Your task to perform on an android device: toggle location history Image 0: 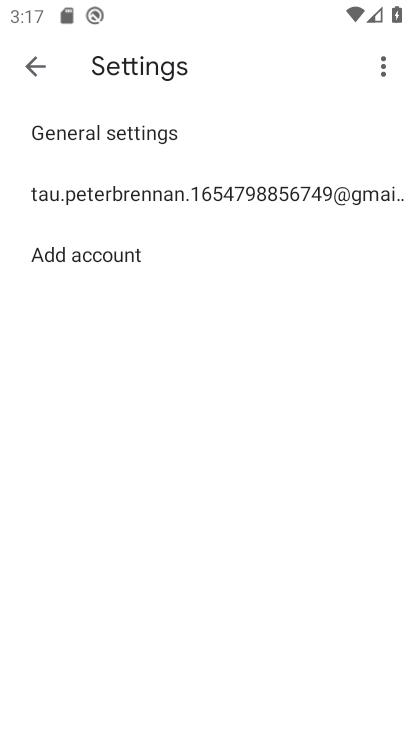
Step 0: press home button
Your task to perform on an android device: toggle location history Image 1: 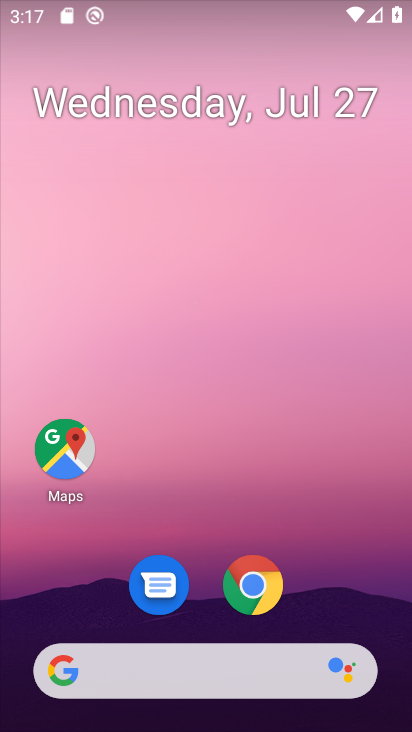
Step 1: drag from (192, 545) to (214, 75)
Your task to perform on an android device: toggle location history Image 2: 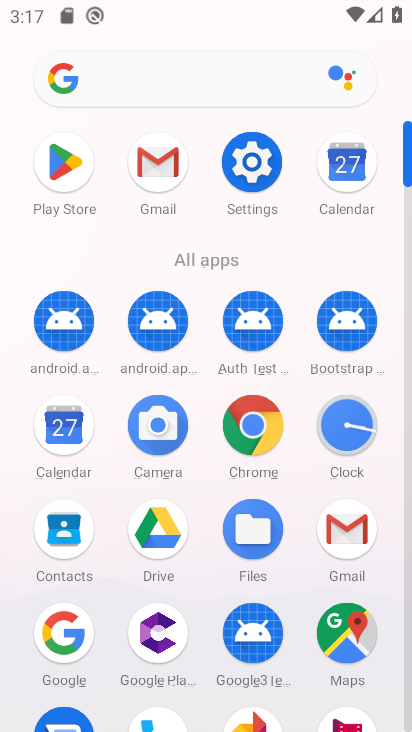
Step 2: click (256, 166)
Your task to perform on an android device: toggle location history Image 3: 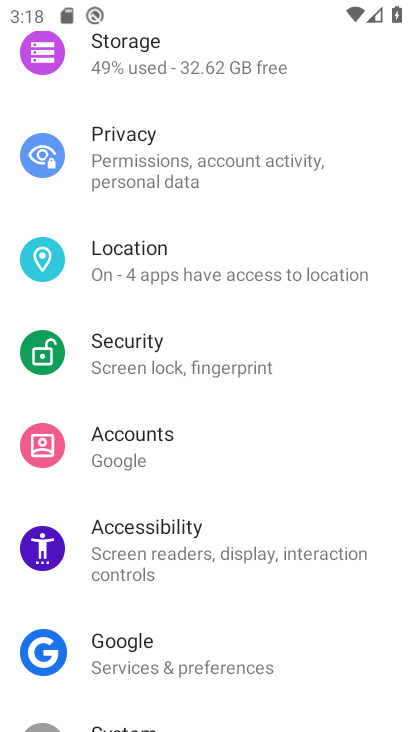
Step 3: click (220, 260)
Your task to perform on an android device: toggle location history Image 4: 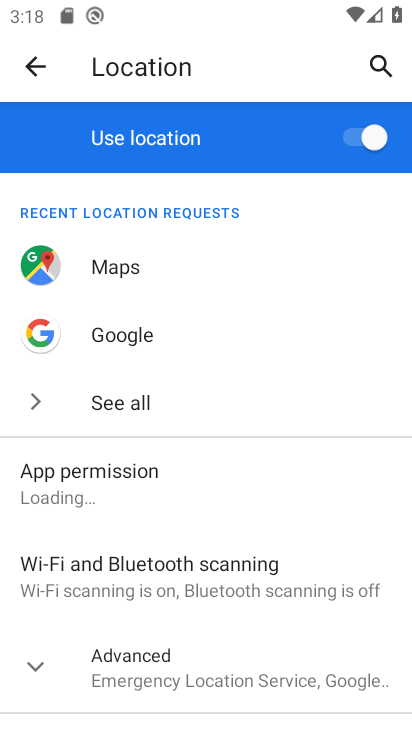
Step 4: click (37, 665)
Your task to perform on an android device: toggle location history Image 5: 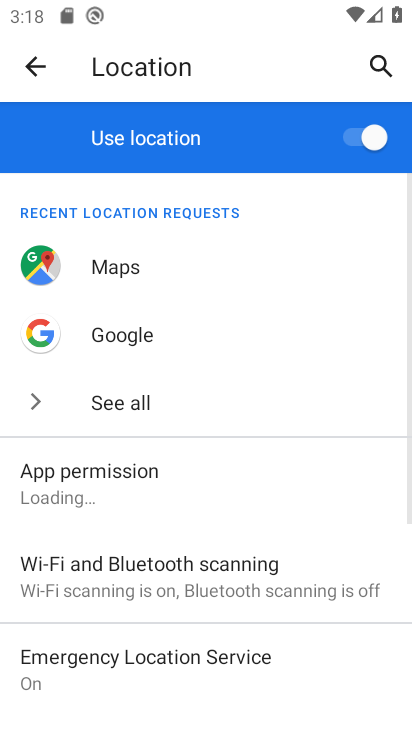
Step 5: drag from (241, 489) to (287, 61)
Your task to perform on an android device: toggle location history Image 6: 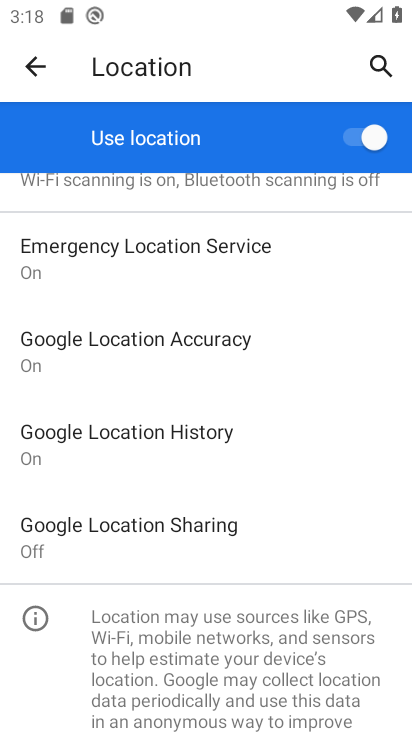
Step 6: click (189, 438)
Your task to perform on an android device: toggle location history Image 7: 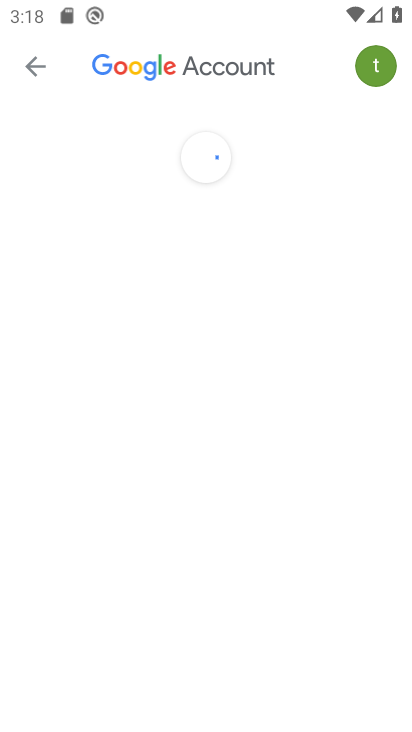
Step 7: drag from (290, 579) to (331, 119)
Your task to perform on an android device: toggle location history Image 8: 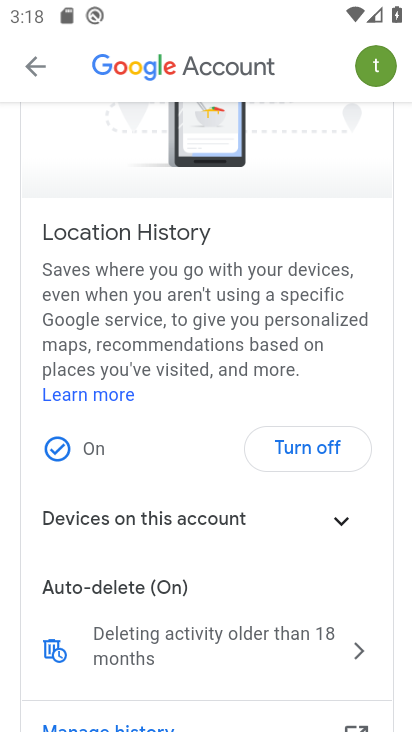
Step 8: click (315, 441)
Your task to perform on an android device: toggle location history Image 9: 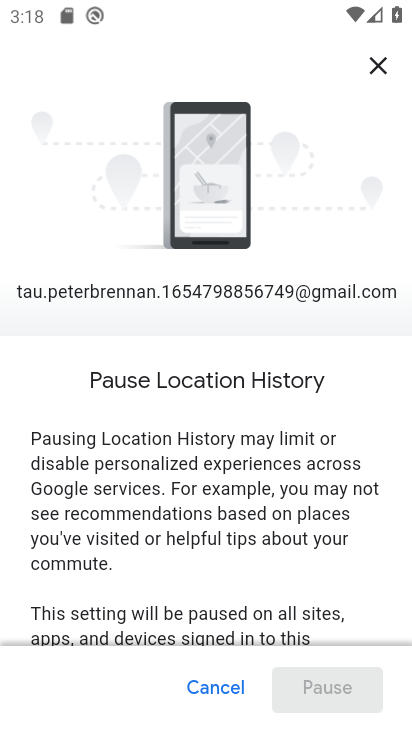
Step 9: drag from (243, 613) to (287, 27)
Your task to perform on an android device: toggle location history Image 10: 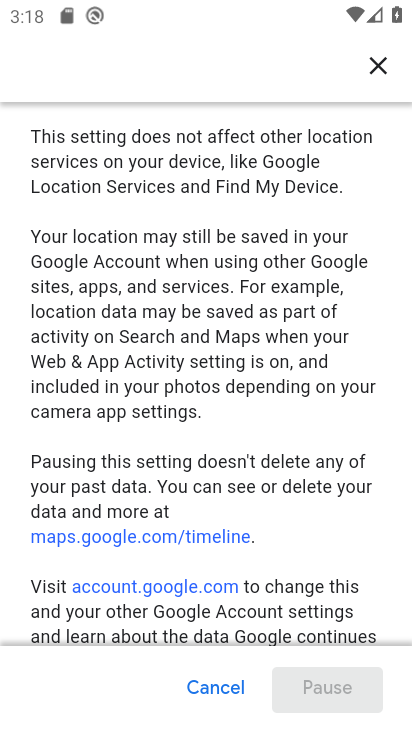
Step 10: drag from (294, 515) to (327, 66)
Your task to perform on an android device: toggle location history Image 11: 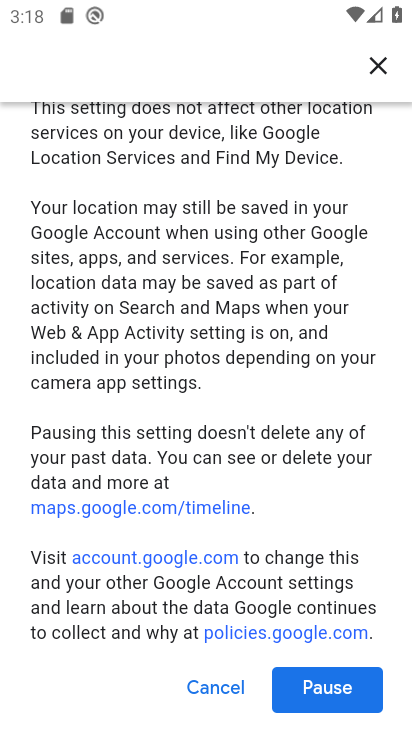
Step 11: click (345, 685)
Your task to perform on an android device: toggle location history Image 12: 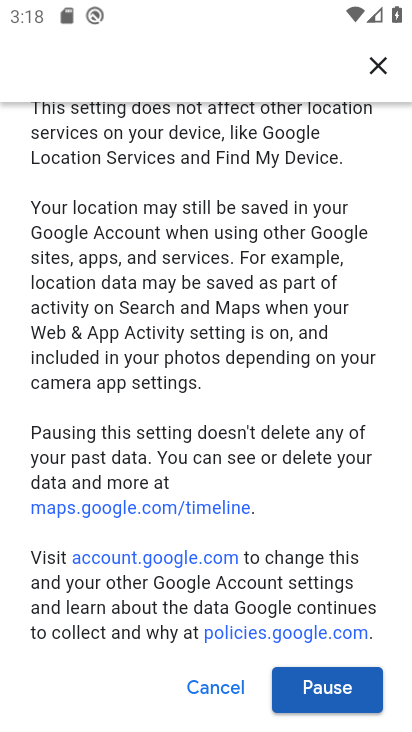
Step 12: click (357, 695)
Your task to perform on an android device: toggle location history Image 13: 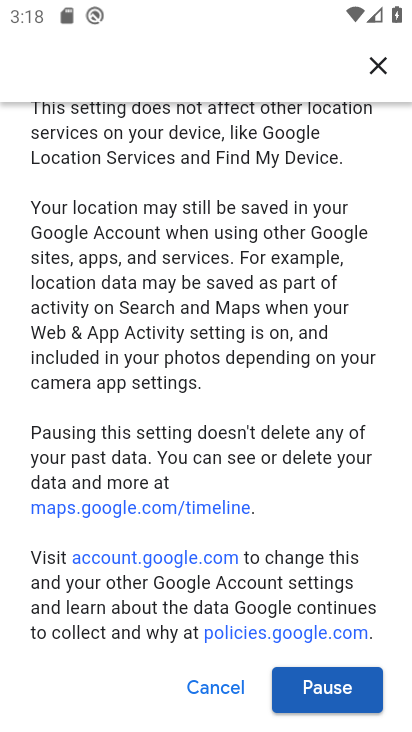
Step 13: click (362, 686)
Your task to perform on an android device: toggle location history Image 14: 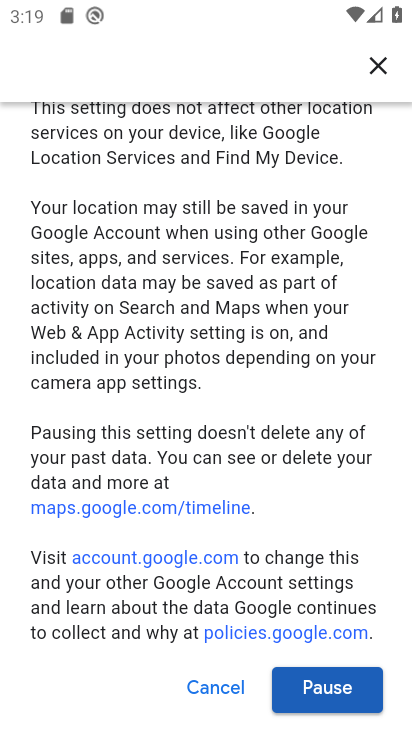
Step 14: click (359, 694)
Your task to perform on an android device: toggle location history Image 15: 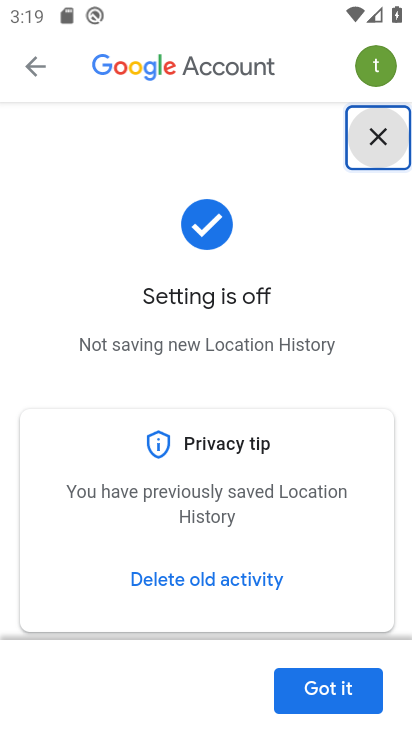
Step 15: click (353, 698)
Your task to perform on an android device: toggle location history Image 16: 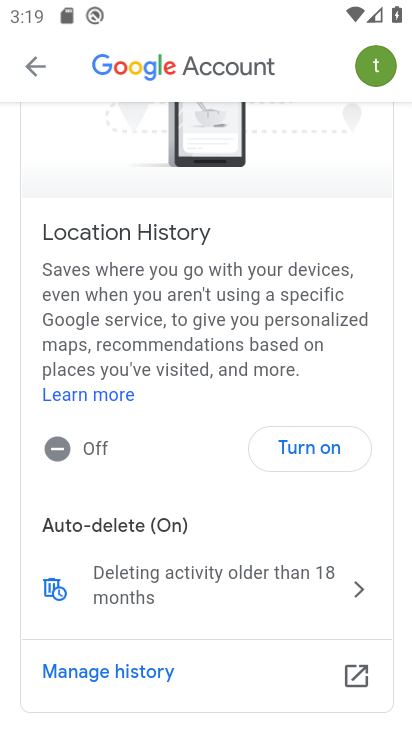
Step 16: task complete